Your task to perform on an android device: Go to eBay Image 0: 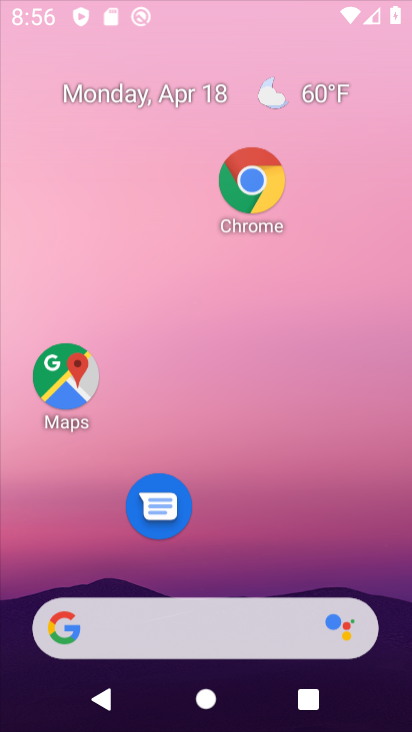
Step 0: click (220, 338)
Your task to perform on an android device: Go to eBay Image 1: 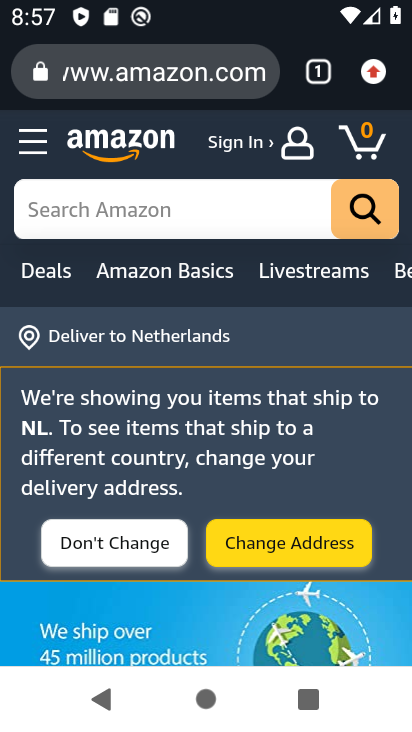
Step 1: click (198, 81)
Your task to perform on an android device: Go to eBay Image 2: 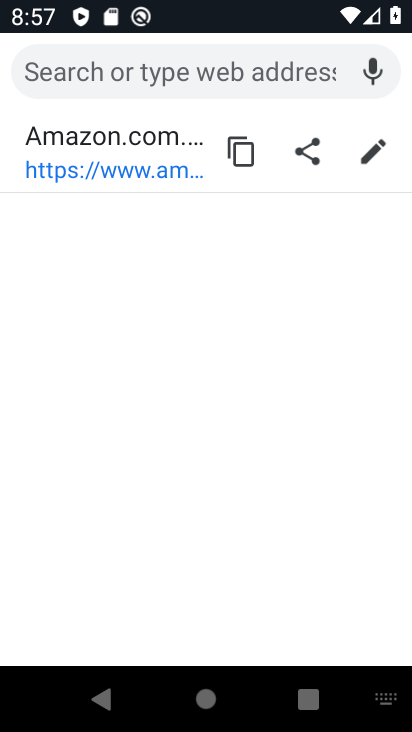
Step 2: type "ebay"
Your task to perform on an android device: Go to eBay Image 3: 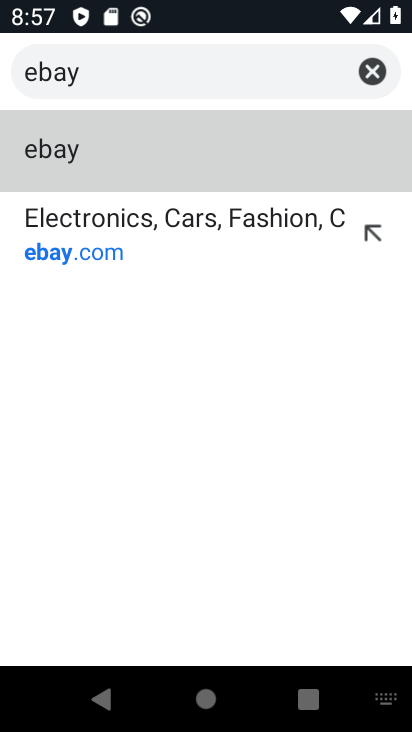
Step 3: click (154, 231)
Your task to perform on an android device: Go to eBay Image 4: 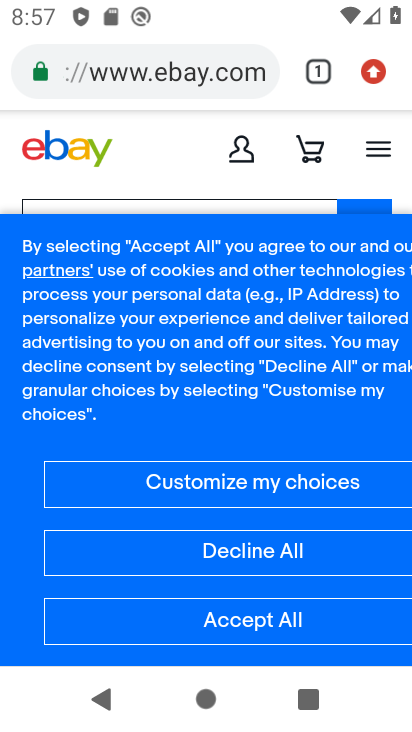
Step 4: task complete